Your task to perform on an android device: Go to privacy settings Image 0: 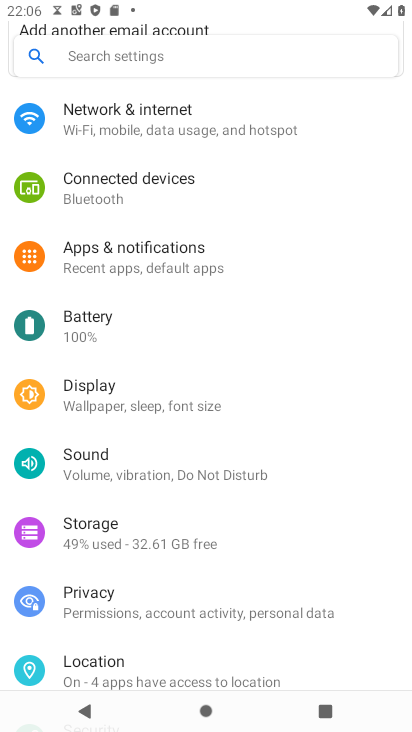
Step 0: press home button
Your task to perform on an android device: Go to privacy settings Image 1: 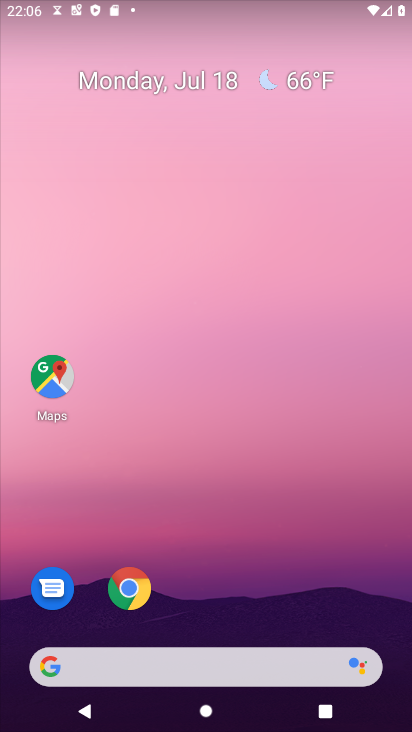
Step 1: drag from (219, 673) to (321, 241)
Your task to perform on an android device: Go to privacy settings Image 2: 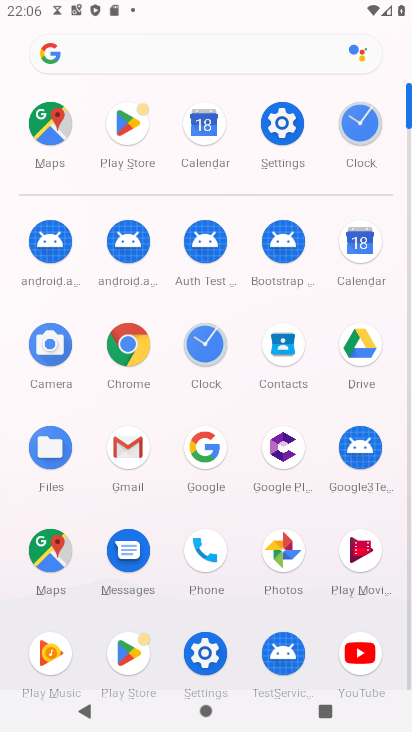
Step 2: click (285, 131)
Your task to perform on an android device: Go to privacy settings Image 3: 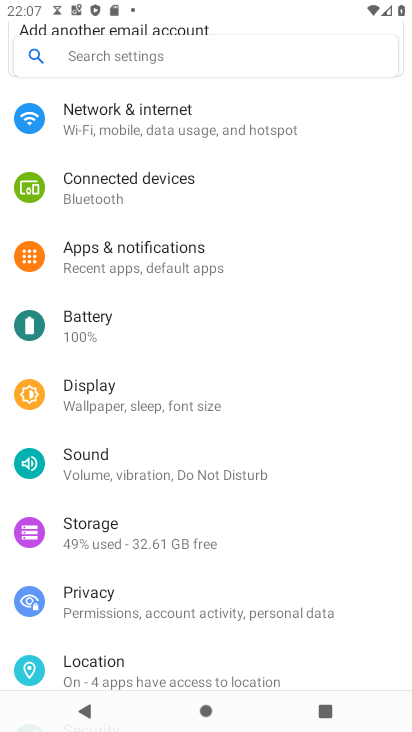
Step 3: click (96, 597)
Your task to perform on an android device: Go to privacy settings Image 4: 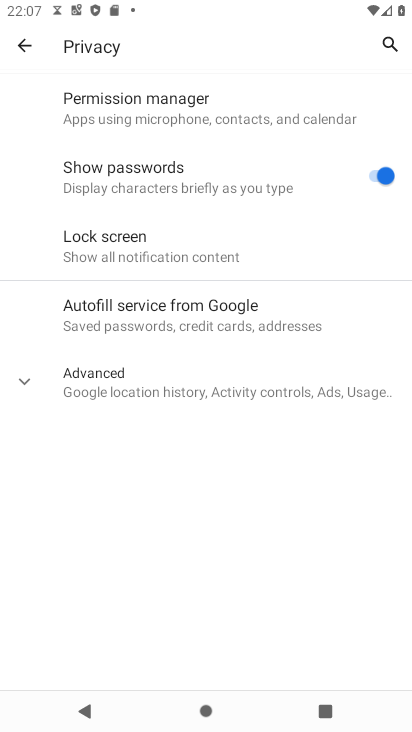
Step 4: task complete